Your task to perform on an android device: Go to ESPN.com Image 0: 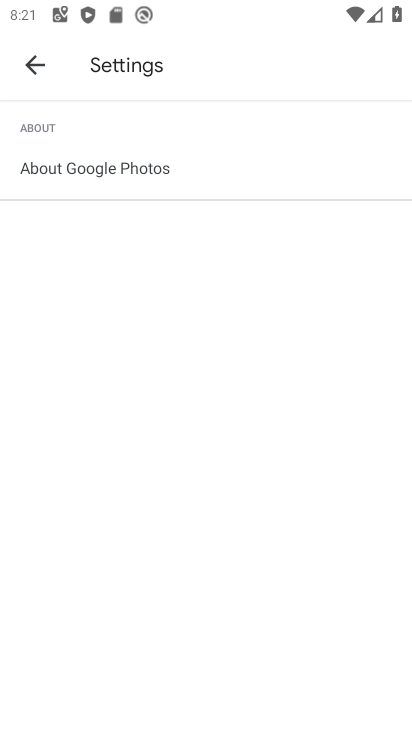
Step 0: press back button
Your task to perform on an android device: Go to ESPN.com Image 1: 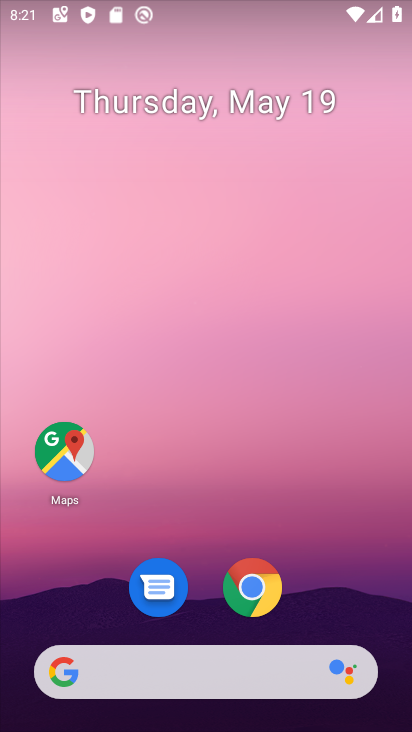
Step 1: drag from (308, 585) to (248, 37)
Your task to perform on an android device: Go to ESPN.com Image 2: 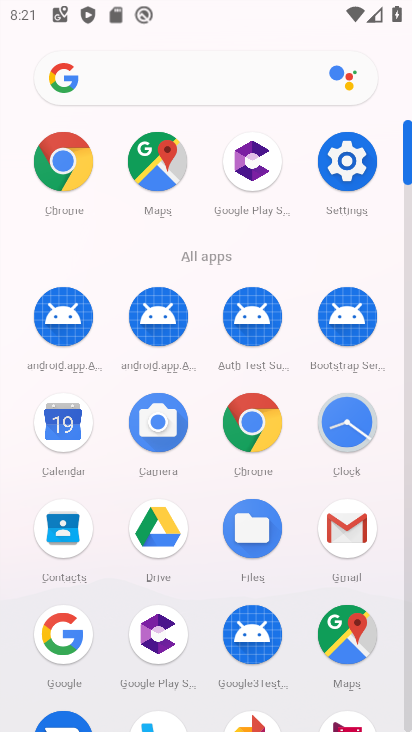
Step 2: click (249, 417)
Your task to perform on an android device: Go to ESPN.com Image 3: 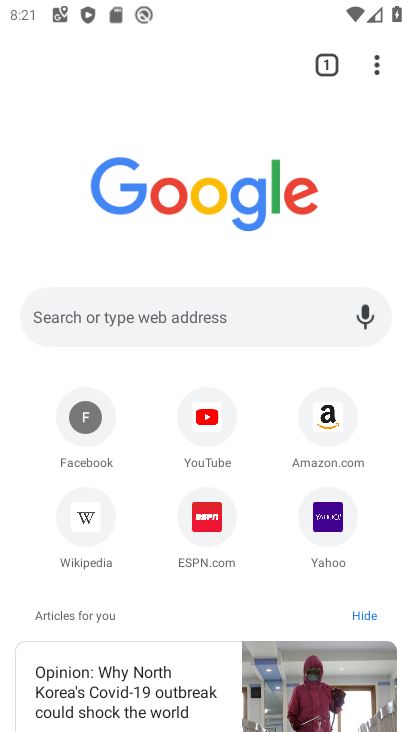
Step 3: click (189, 309)
Your task to perform on an android device: Go to ESPN.com Image 4: 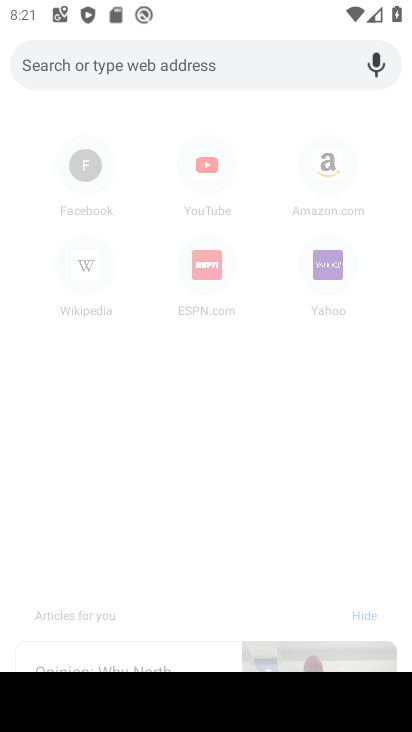
Step 4: type " ESPN.com"
Your task to perform on an android device: Go to ESPN.com Image 5: 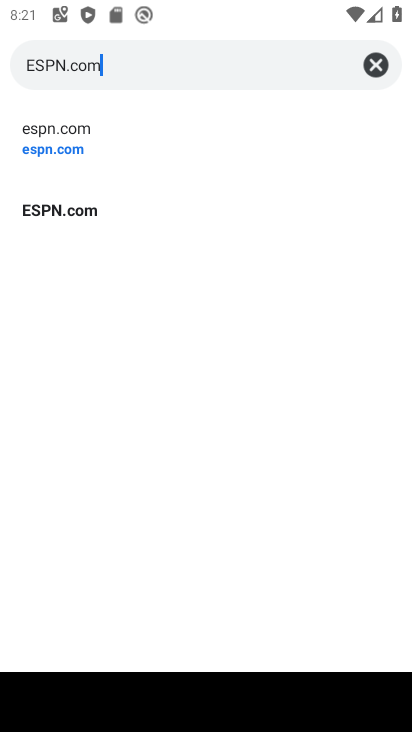
Step 5: type ""
Your task to perform on an android device: Go to ESPN.com Image 6: 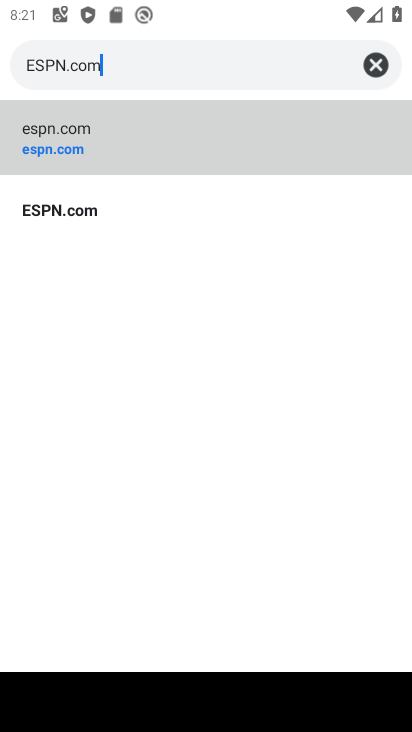
Step 6: click (167, 140)
Your task to perform on an android device: Go to ESPN.com Image 7: 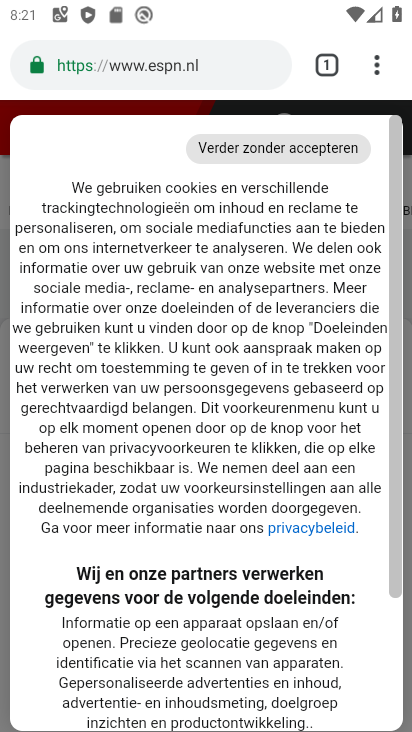
Step 7: drag from (193, 559) to (214, 143)
Your task to perform on an android device: Go to ESPN.com Image 8: 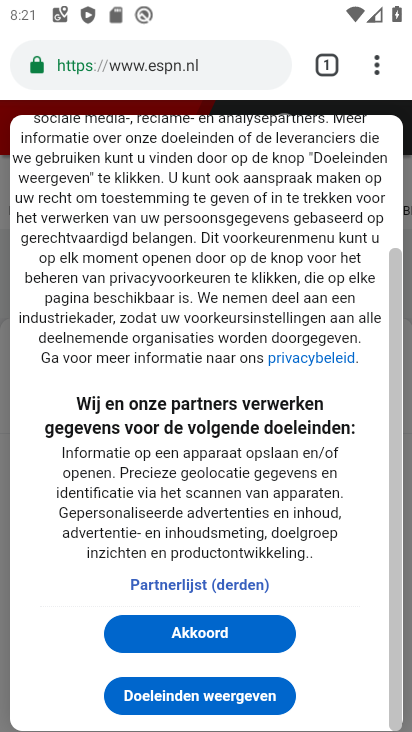
Step 8: click (202, 627)
Your task to perform on an android device: Go to ESPN.com Image 9: 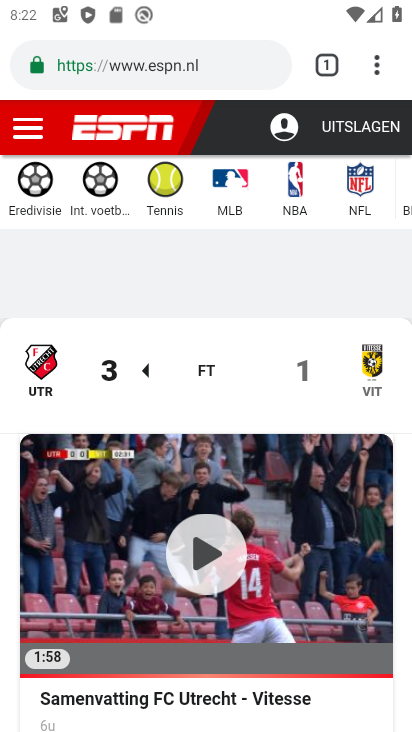
Step 9: task complete